Your task to perform on an android device: open a new tab in the chrome app Image 0: 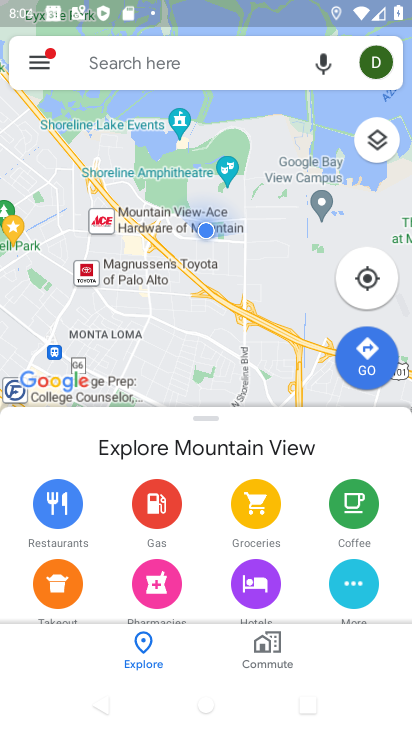
Step 0: press home button
Your task to perform on an android device: open a new tab in the chrome app Image 1: 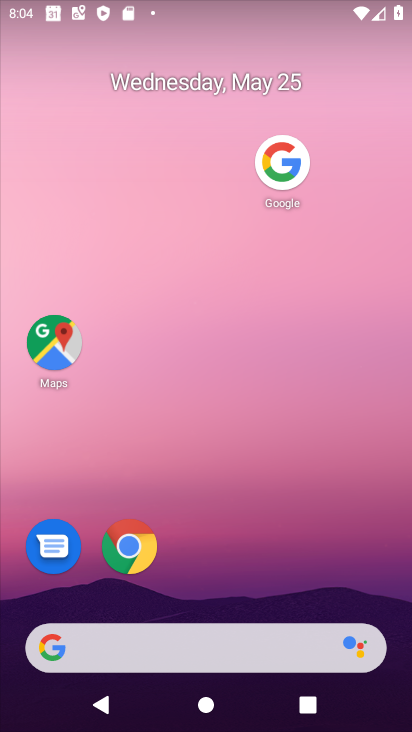
Step 1: click (129, 550)
Your task to perform on an android device: open a new tab in the chrome app Image 2: 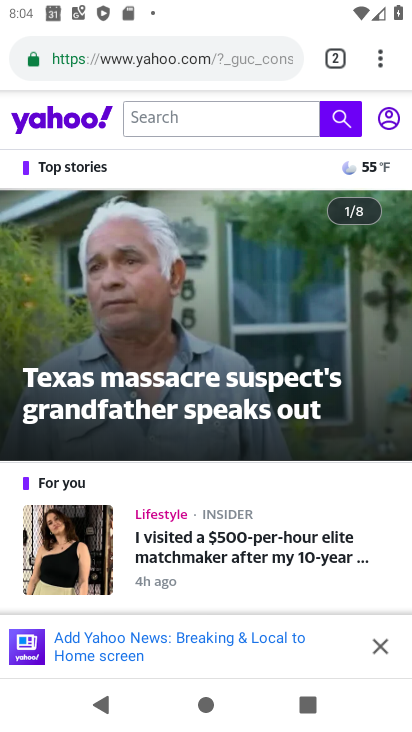
Step 2: task complete